Your task to perform on an android device: Open Android settings Image 0: 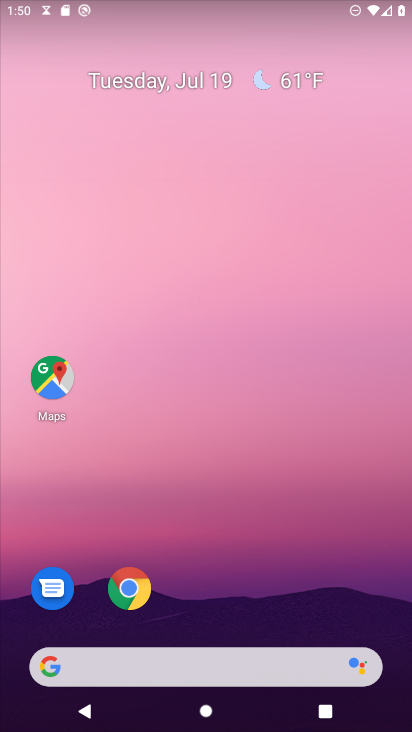
Step 0: drag from (230, 683) to (214, 106)
Your task to perform on an android device: Open Android settings Image 1: 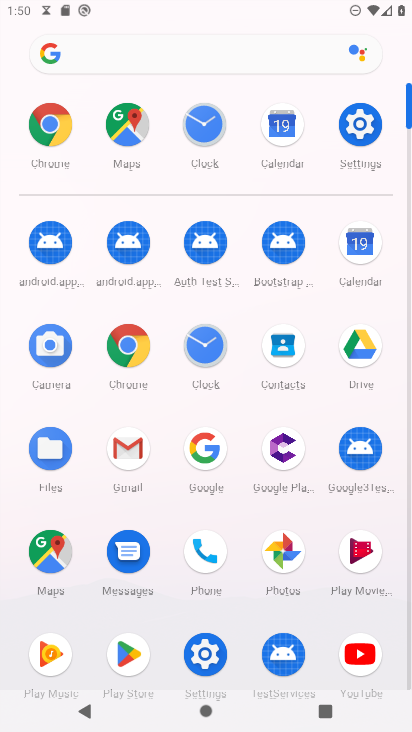
Step 1: click (355, 132)
Your task to perform on an android device: Open Android settings Image 2: 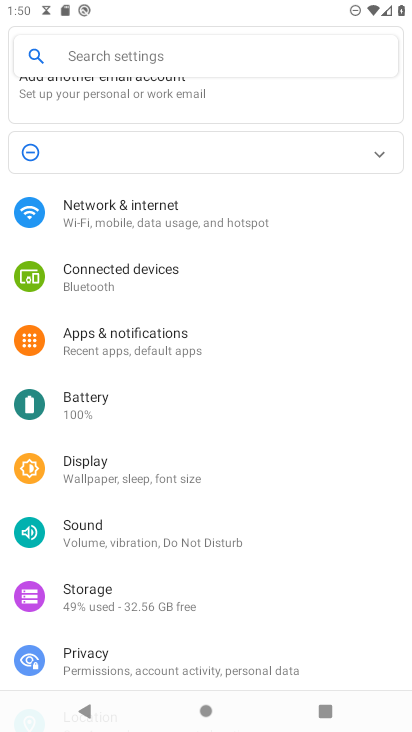
Step 2: click (94, 58)
Your task to perform on an android device: Open Android settings Image 3: 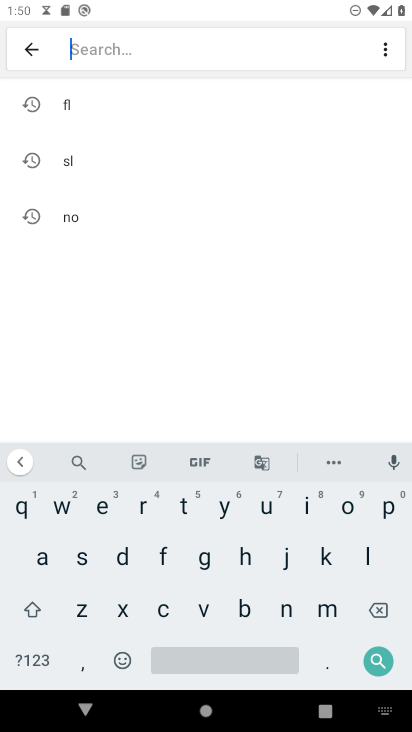
Step 3: click (32, 564)
Your task to perform on an android device: Open Android settings Image 4: 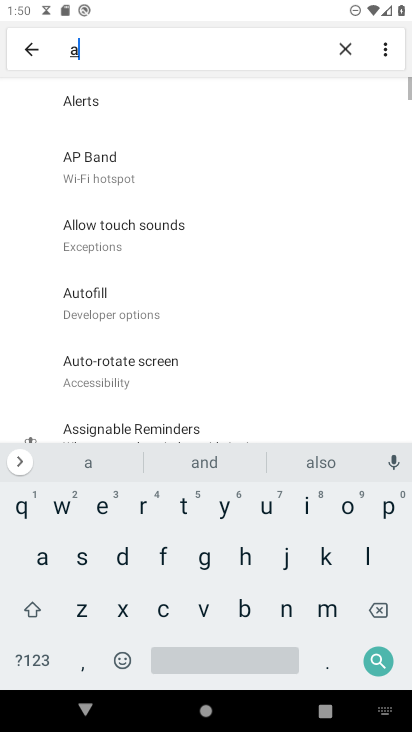
Step 4: click (287, 613)
Your task to perform on an android device: Open Android settings Image 5: 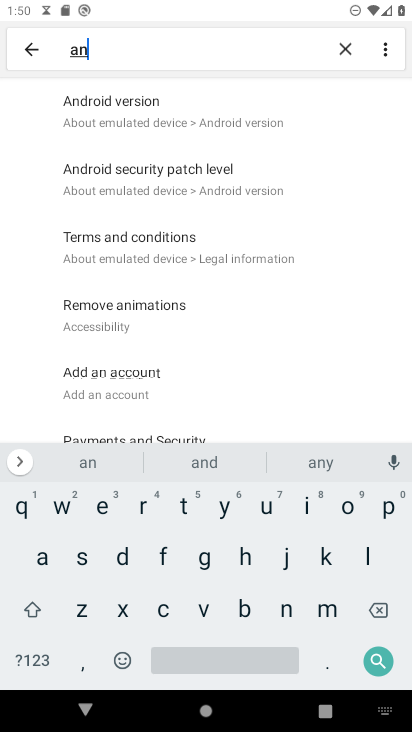
Step 5: click (113, 119)
Your task to perform on an android device: Open Android settings Image 6: 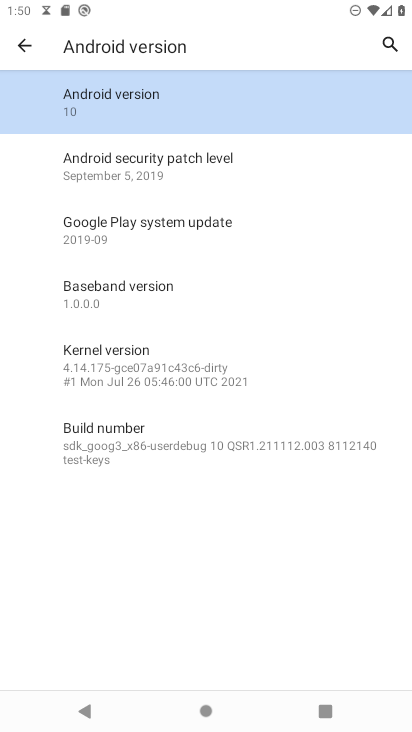
Step 6: click (115, 115)
Your task to perform on an android device: Open Android settings Image 7: 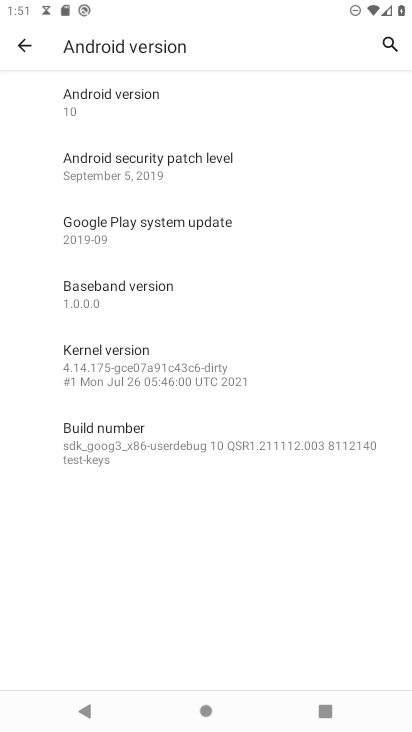
Step 7: task complete